Your task to perform on an android device: Go to network settings Image 0: 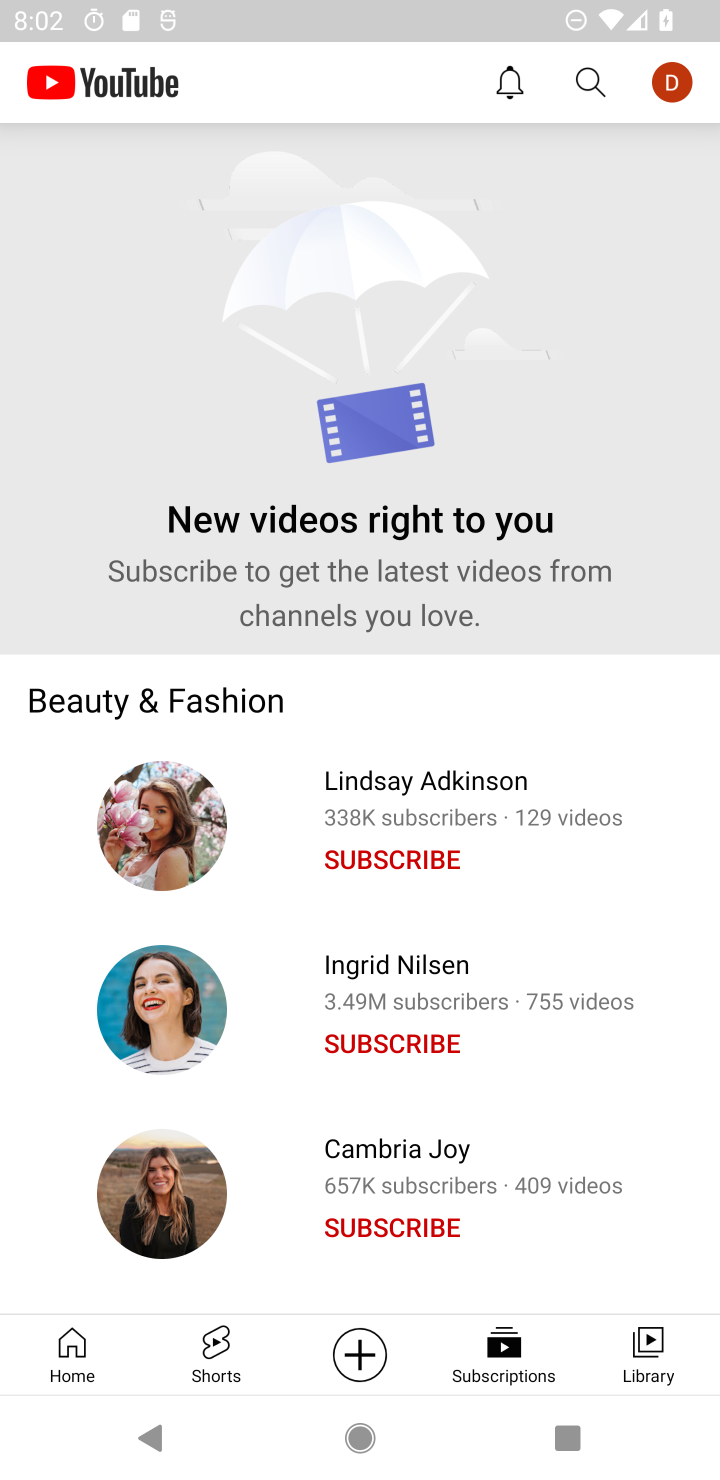
Step 0: press home button
Your task to perform on an android device: Go to network settings Image 1: 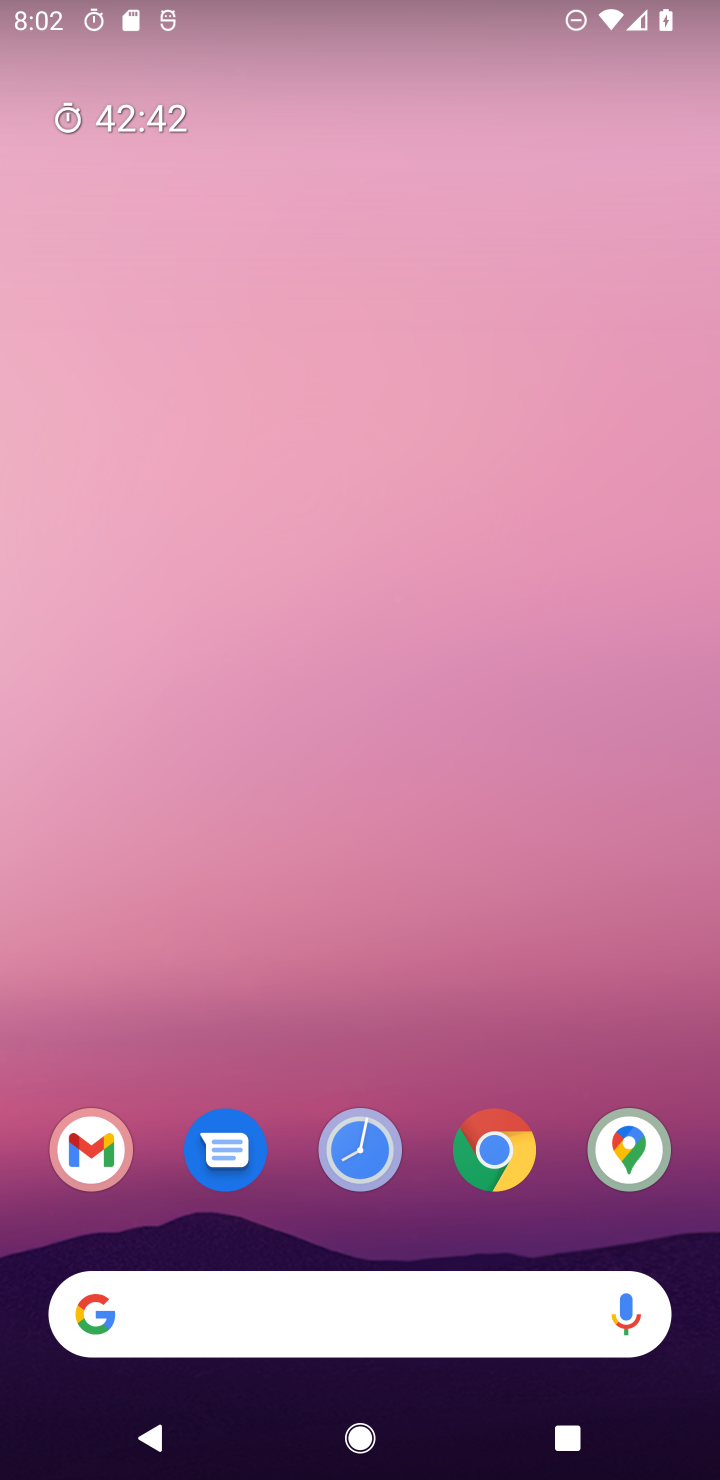
Step 1: drag from (326, 1324) to (379, 29)
Your task to perform on an android device: Go to network settings Image 2: 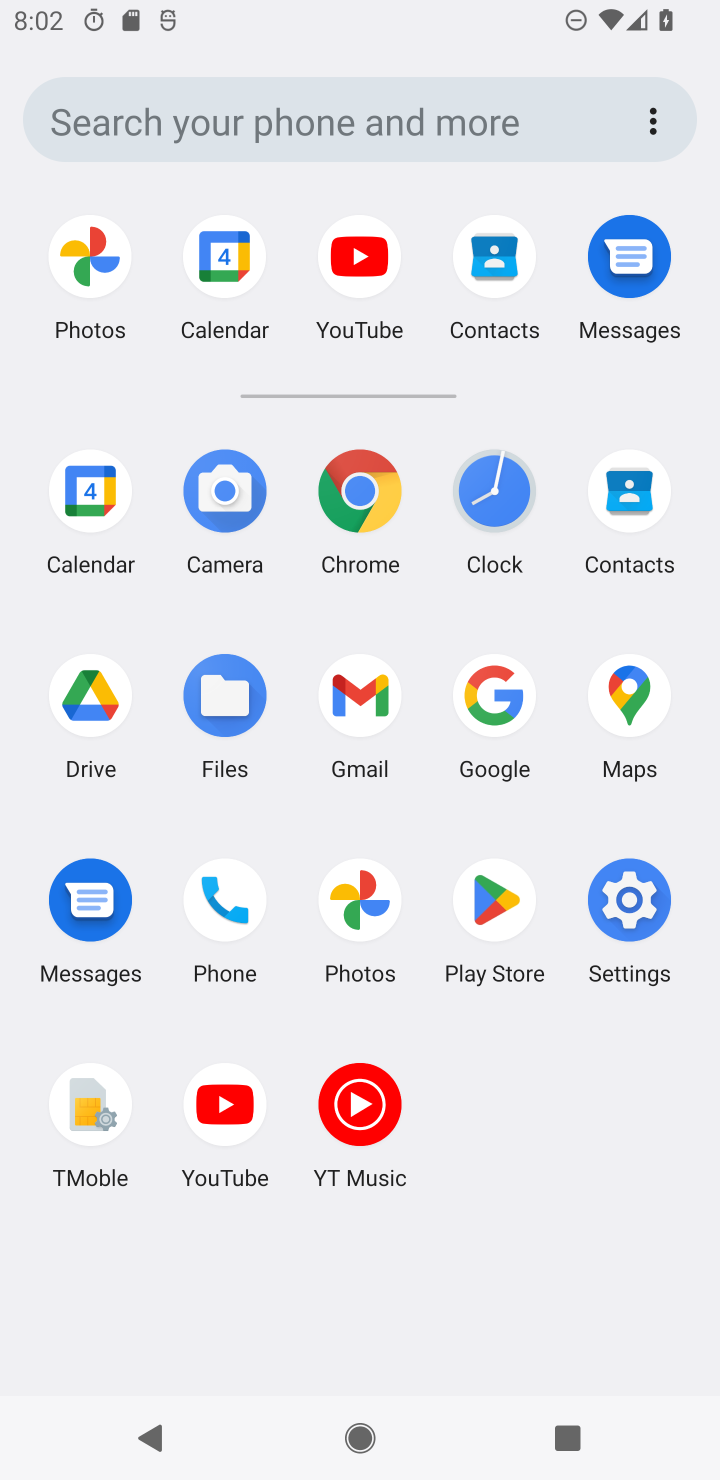
Step 2: click (630, 908)
Your task to perform on an android device: Go to network settings Image 3: 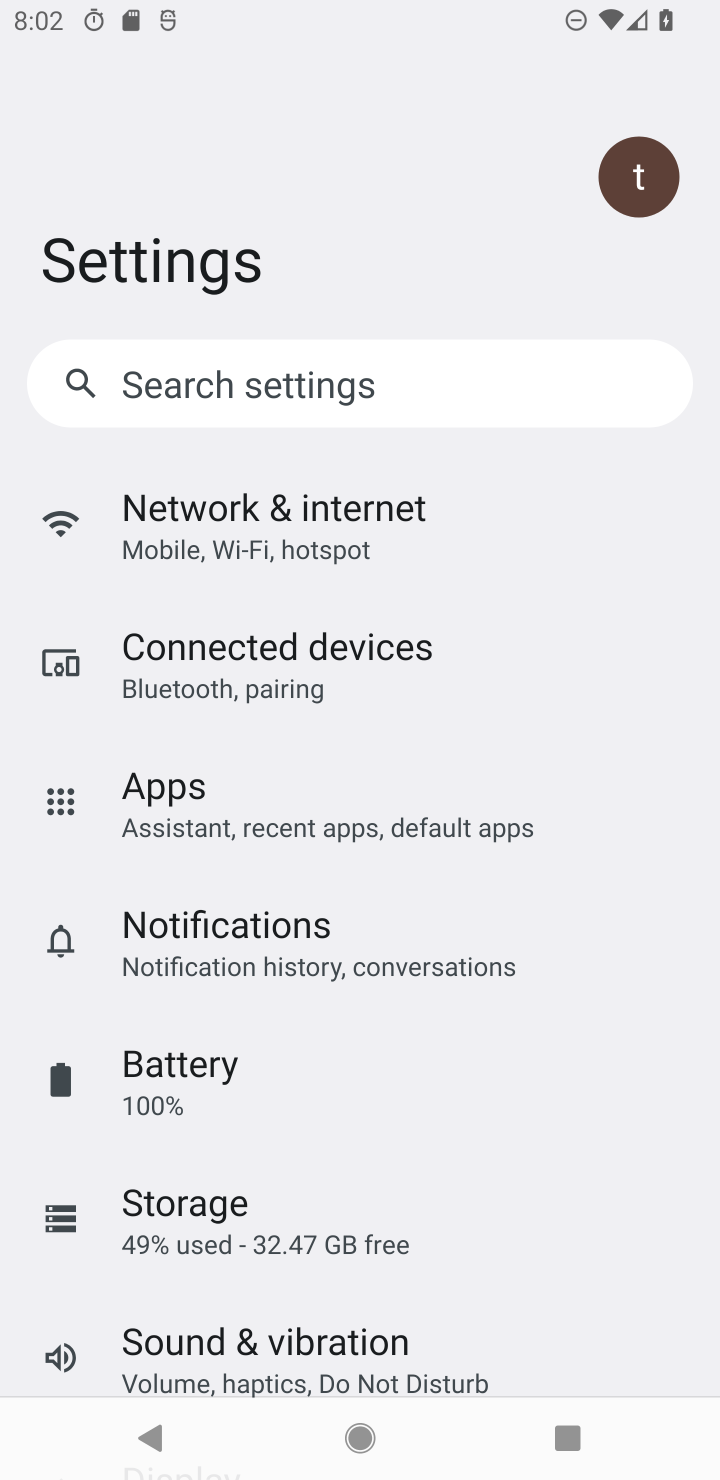
Step 3: click (230, 521)
Your task to perform on an android device: Go to network settings Image 4: 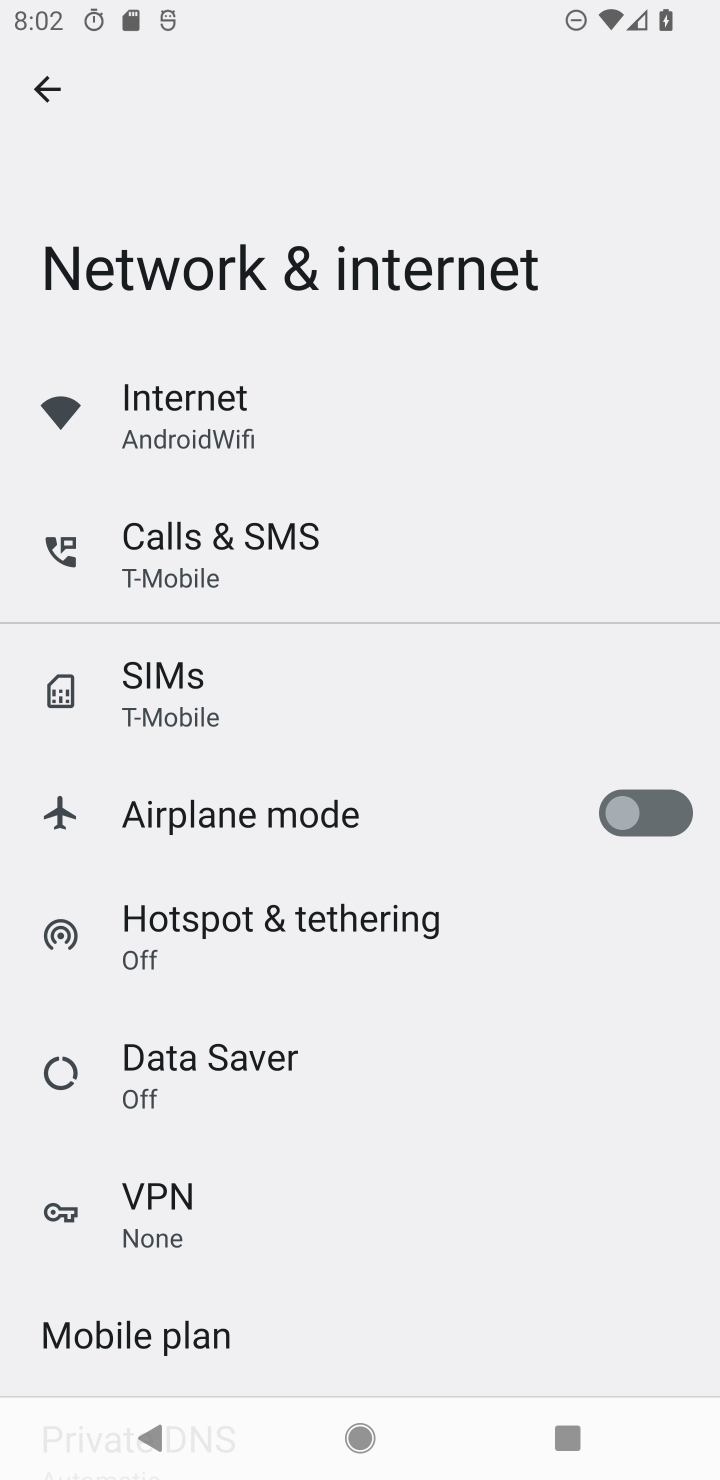
Step 4: task complete